Your task to perform on an android device: Search for Italian restaurants on Maps Image 0: 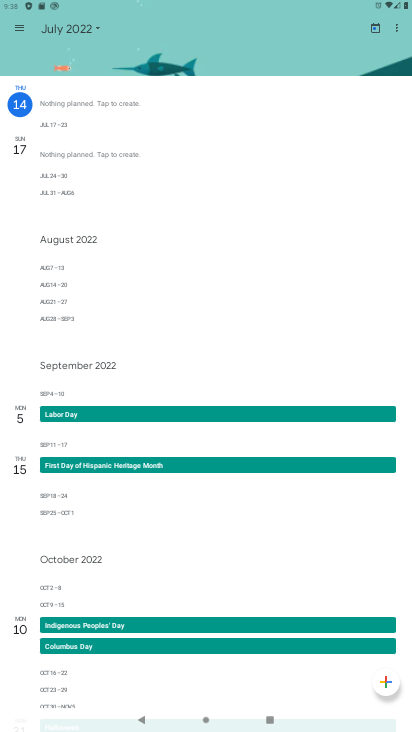
Step 0: press home button
Your task to perform on an android device: Search for Italian restaurants on Maps Image 1: 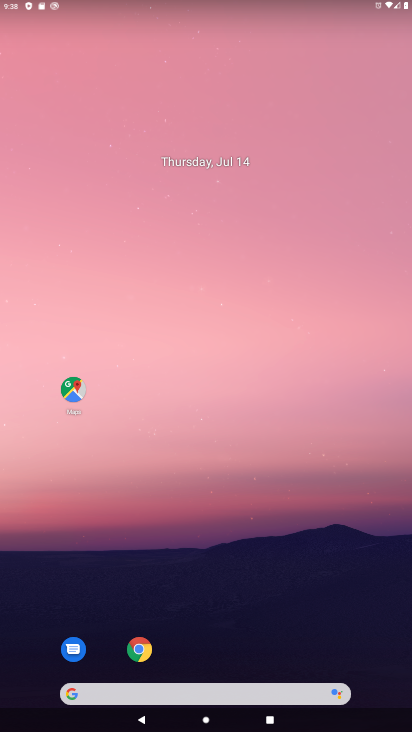
Step 1: click (124, 692)
Your task to perform on an android device: Search for Italian restaurants on Maps Image 2: 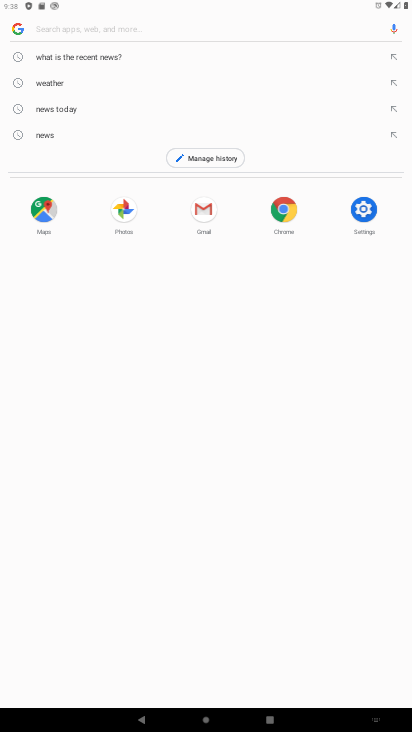
Step 2: press home button
Your task to perform on an android device: Search for Italian restaurants on Maps Image 3: 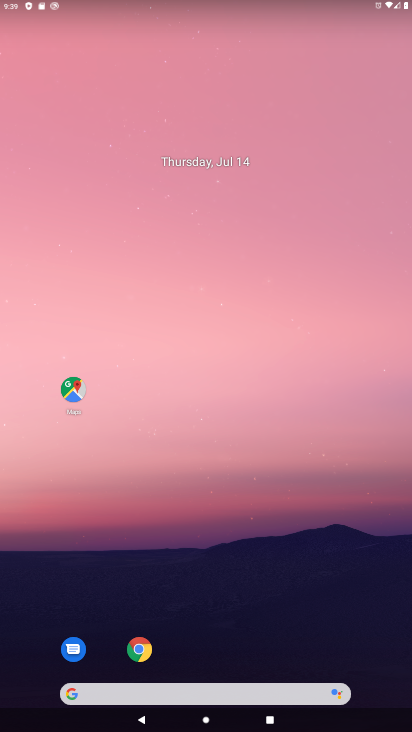
Step 3: click (70, 383)
Your task to perform on an android device: Search for Italian restaurants on Maps Image 4: 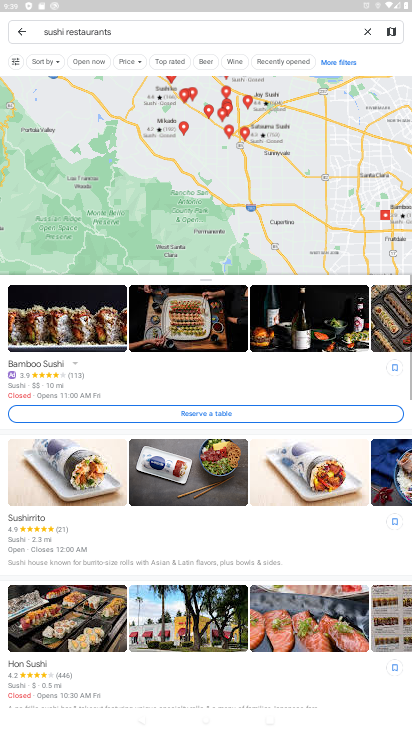
Step 4: click (361, 31)
Your task to perform on an android device: Search for Italian restaurants on Maps Image 5: 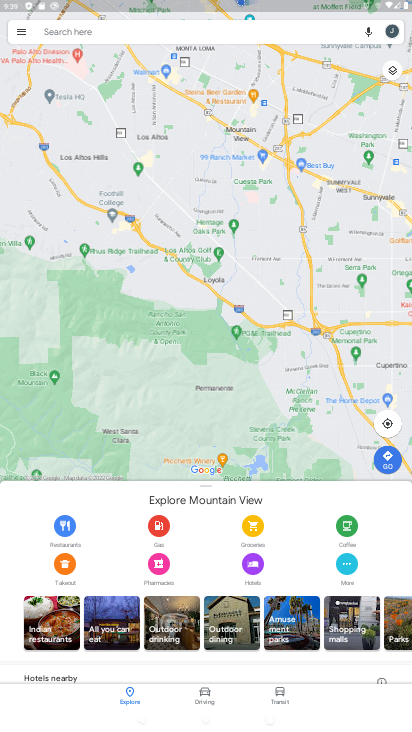
Step 5: click (188, 35)
Your task to perform on an android device: Search for Italian restaurants on Maps Image 6: 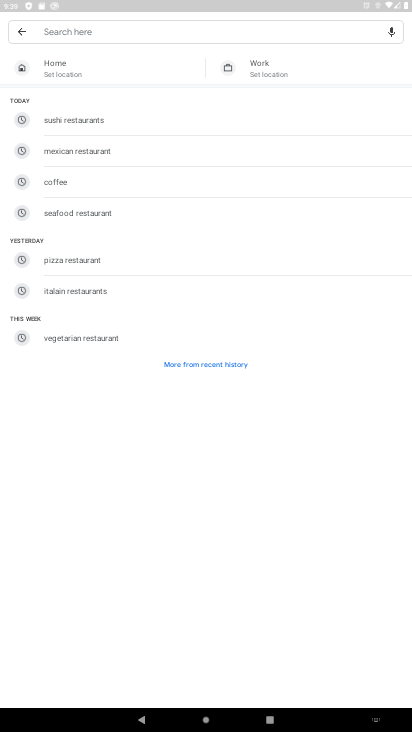
Step 6: click (82, 291)
Your task to perform on an android device: Search for Italian restaurants on Maps Image 7: 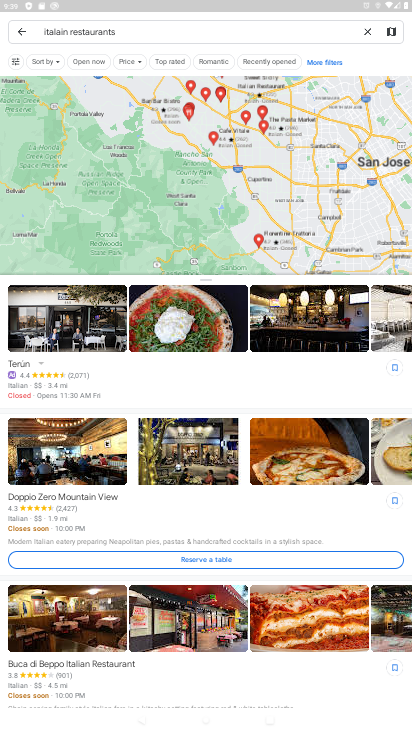
Step 7: task complete